Your task to perform on an android device: open app "Google Play Music" Image 0: 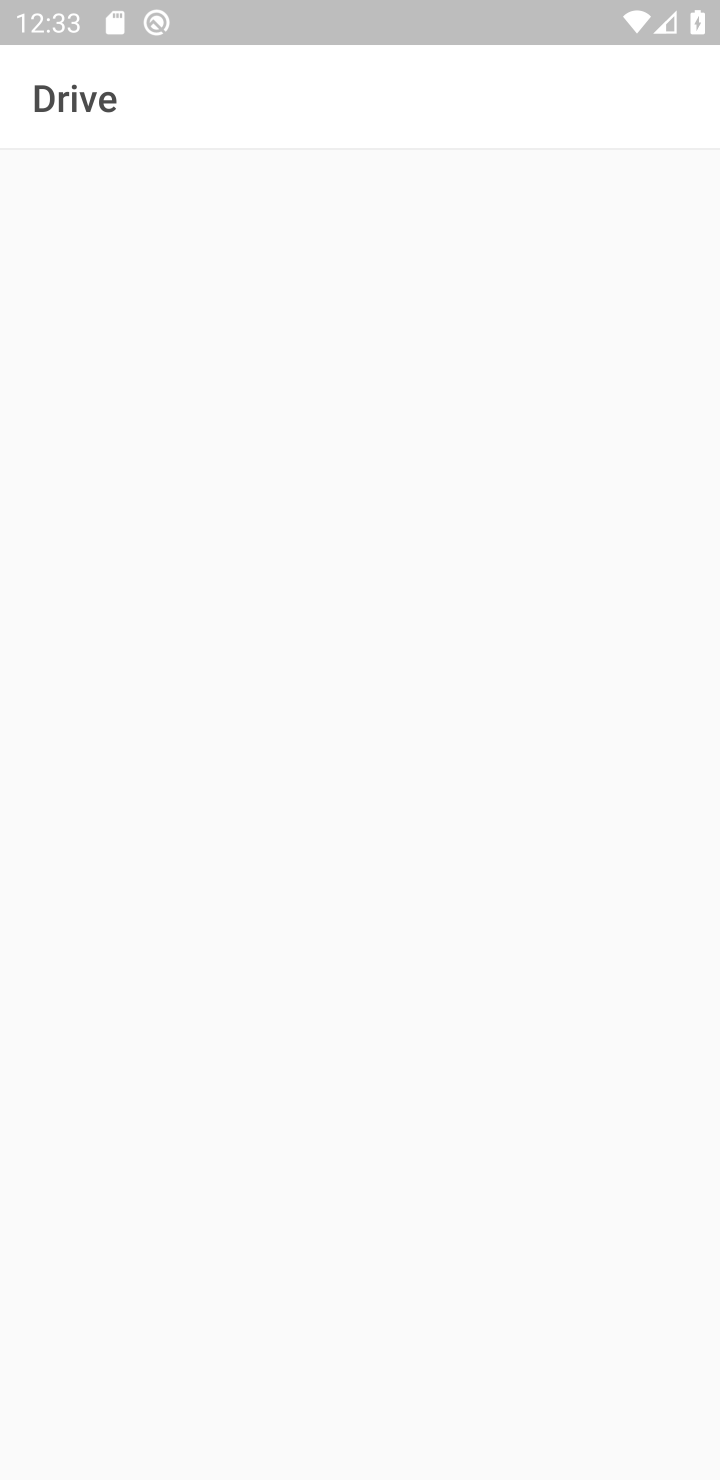
Step 0: press home button
Your task to perform on an android device: open app "Google Play Music" Image 1: 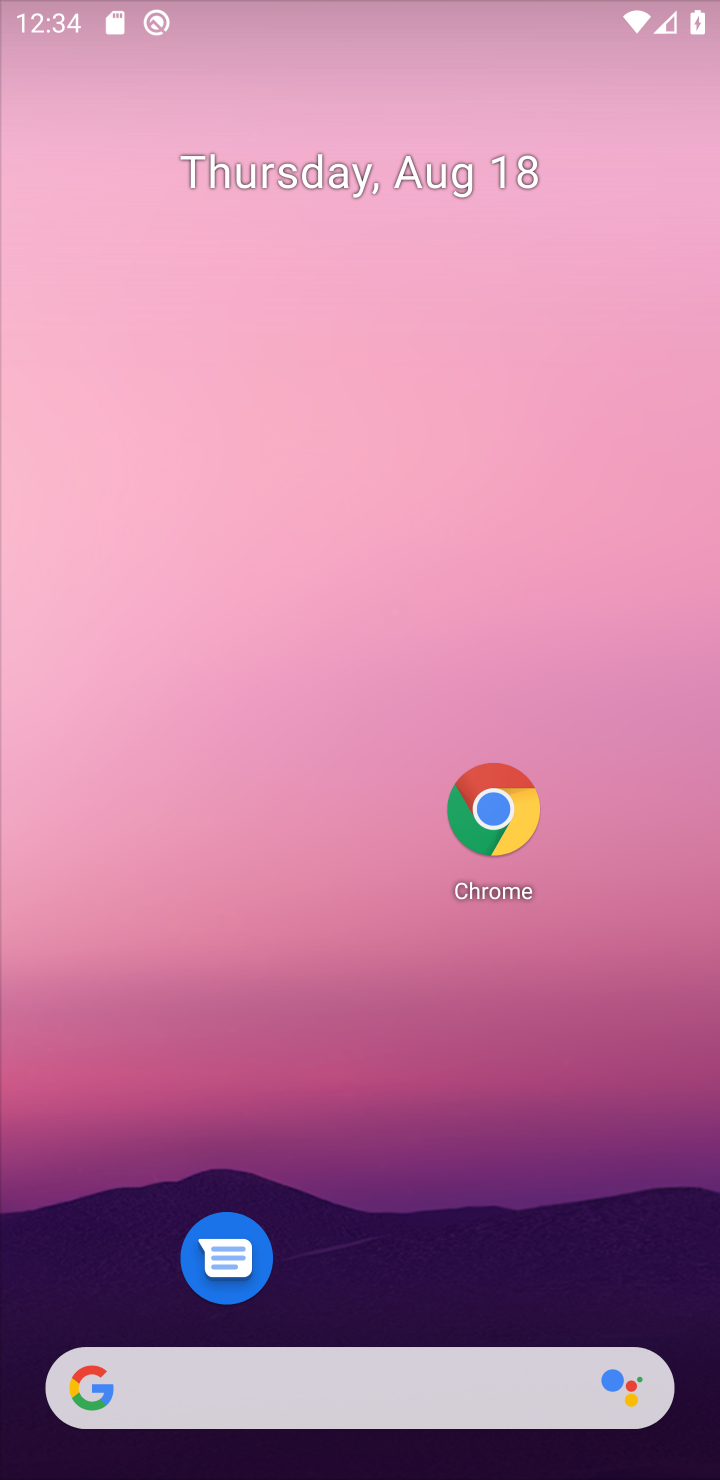
Step 1: drag from (347, 870) to (353, 527)
Your task to perform on an android device: open app "Google Play Music" Image 2: 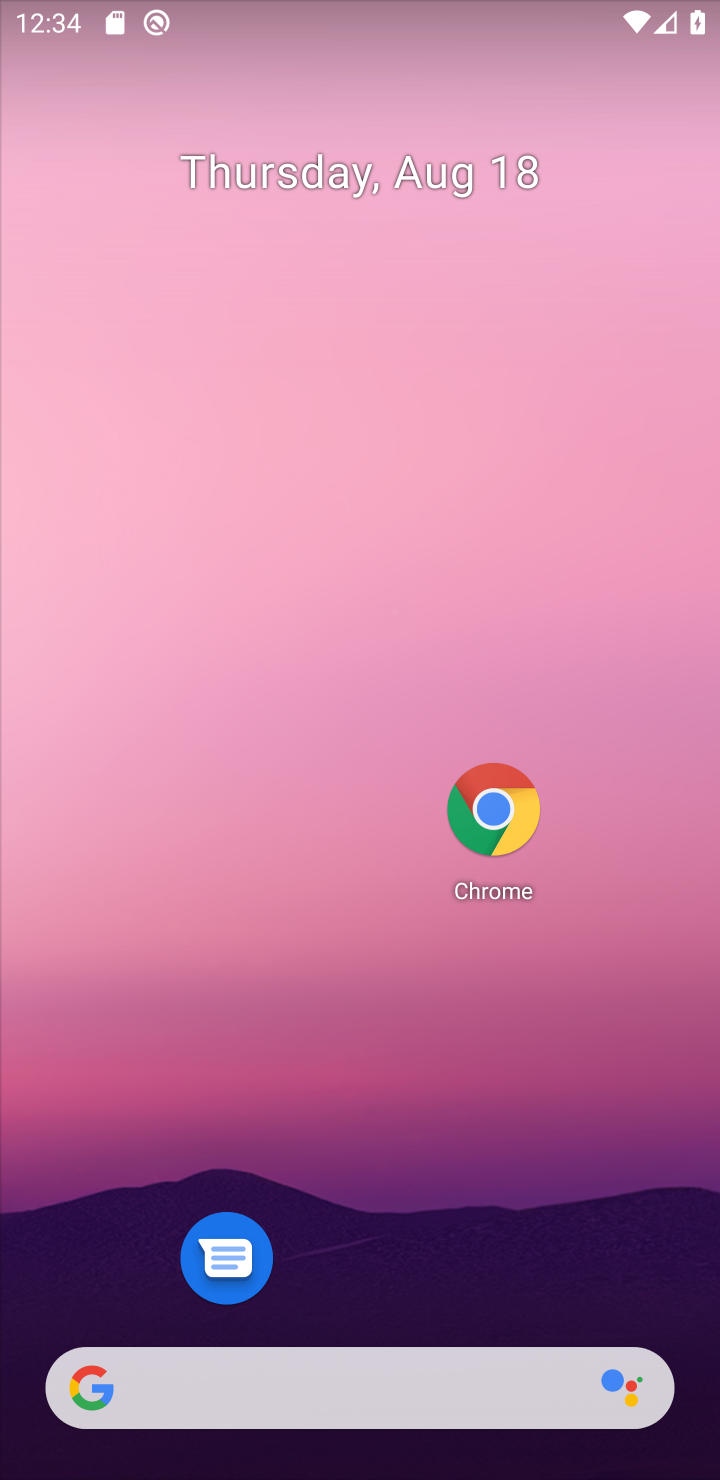
Step 2: drag from (308, 1315) to (307, 1000)
Your task to perform on an android device: open app "Google Play Music" Image 3: 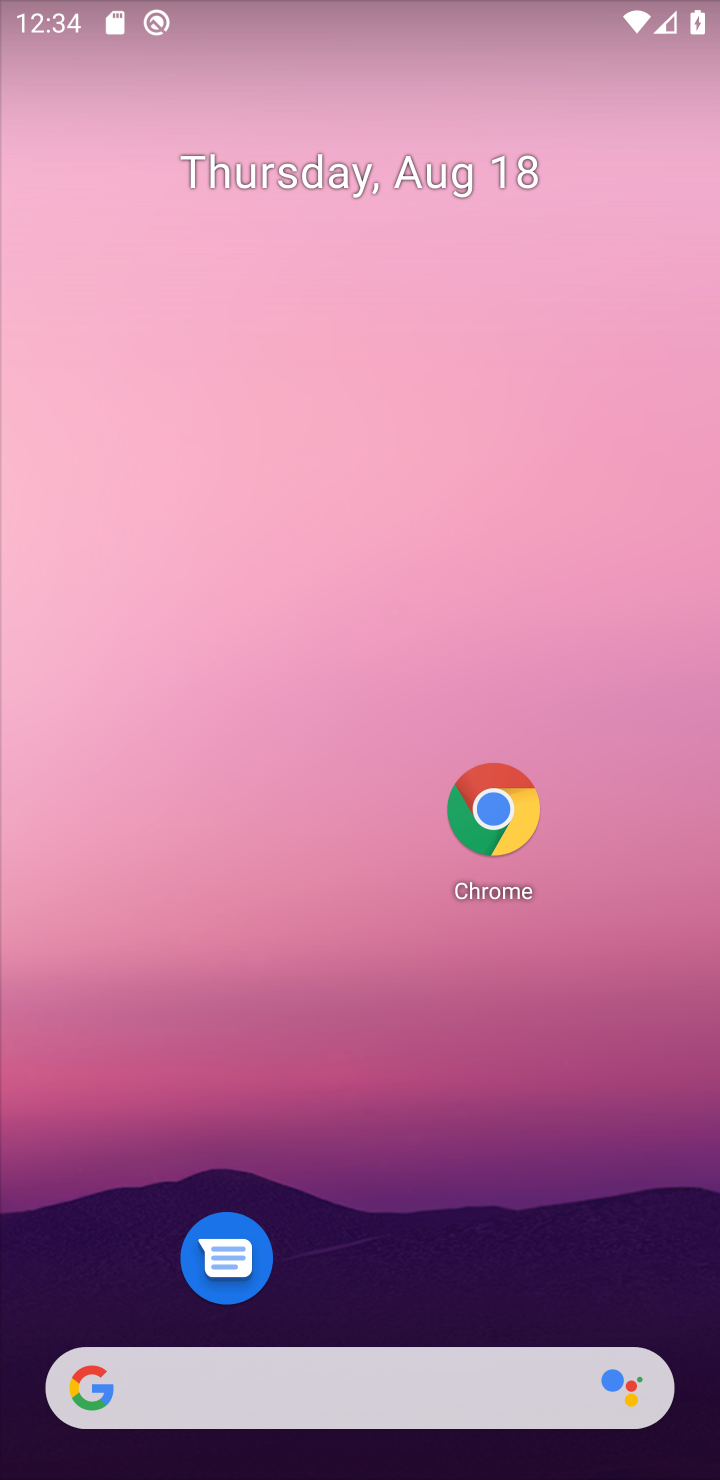
Step 3: drag from (335, 672) to (322, 323)
Your task to perform on an android device: open app "Google Play Music" Image 4: 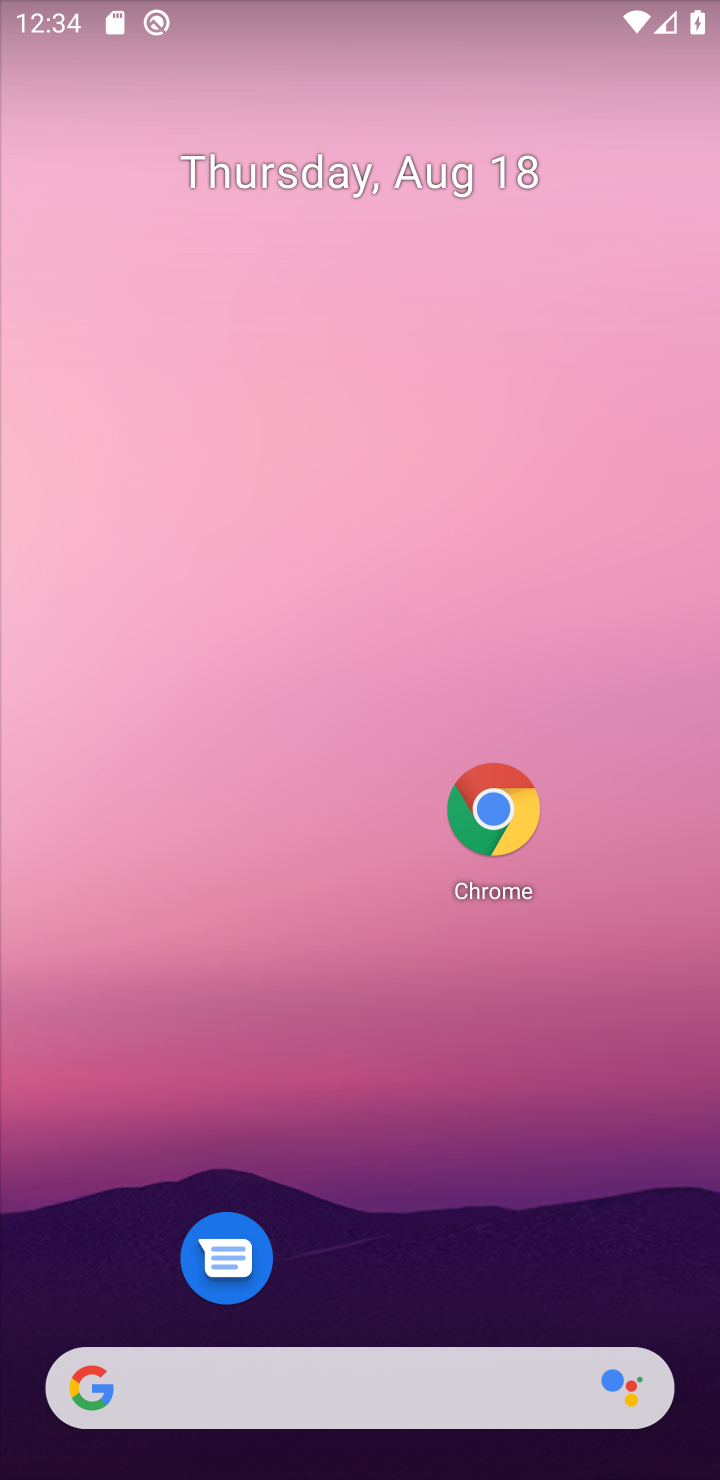
Step 4: drag from (305, 1311) to (353, 533)
Your task to perform on an android device: open app "Google Play Music" Image 5: 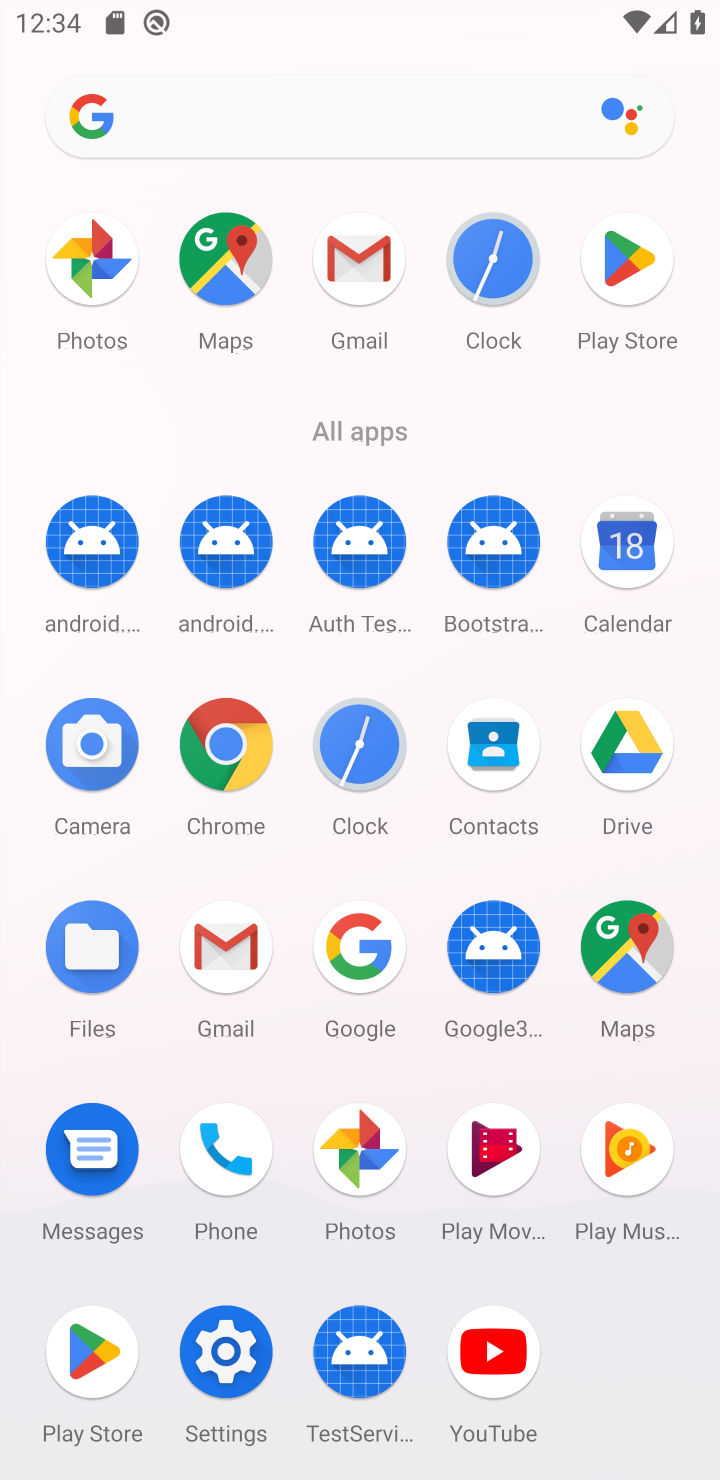
Step 5: click (653, 269)
Your task to perform on an android device: open app "Google Play Music" Image 6: 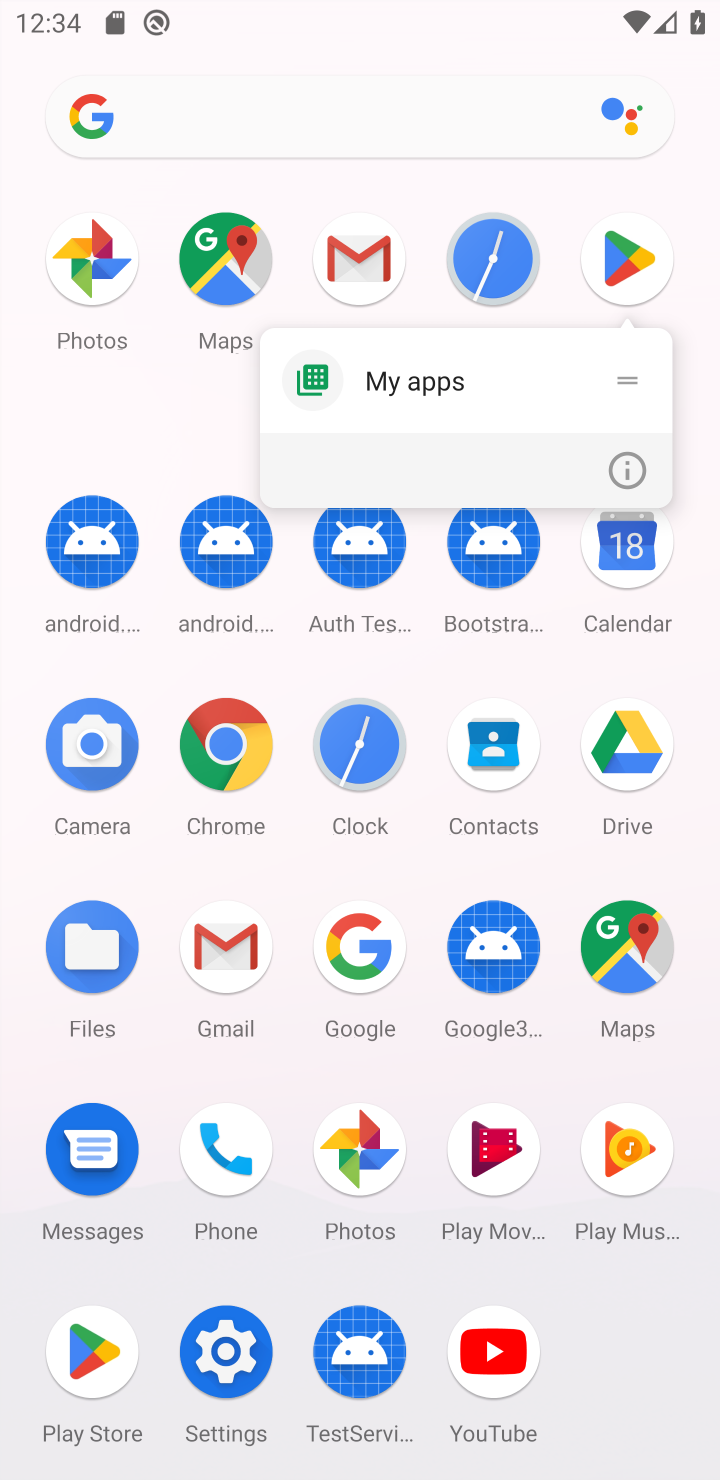
Step 6: click (594, 241)
Your task to perform on an android device: open app "Google Play Music" Image 7: 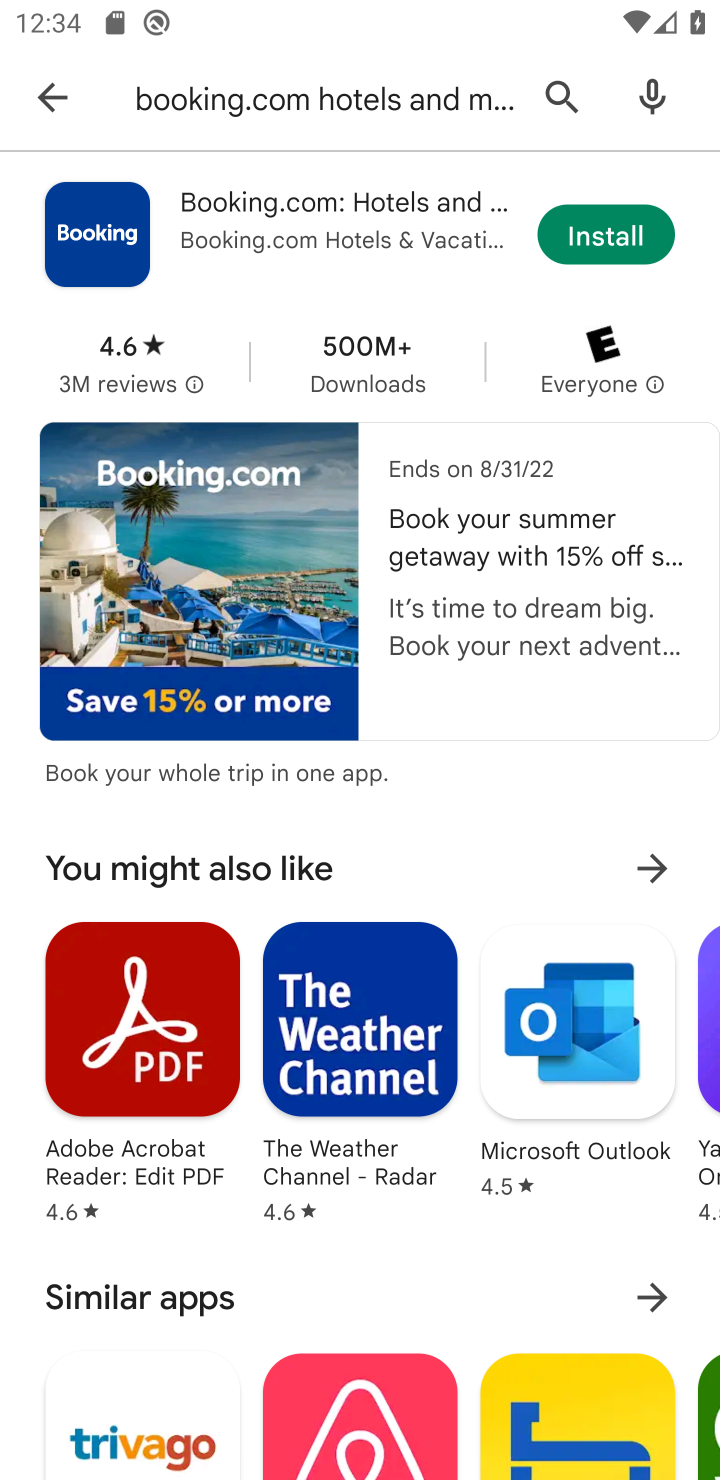
Step 7: click (36, 90)
Your task to perform on an android device: open app "Google Play Music" Image 8: 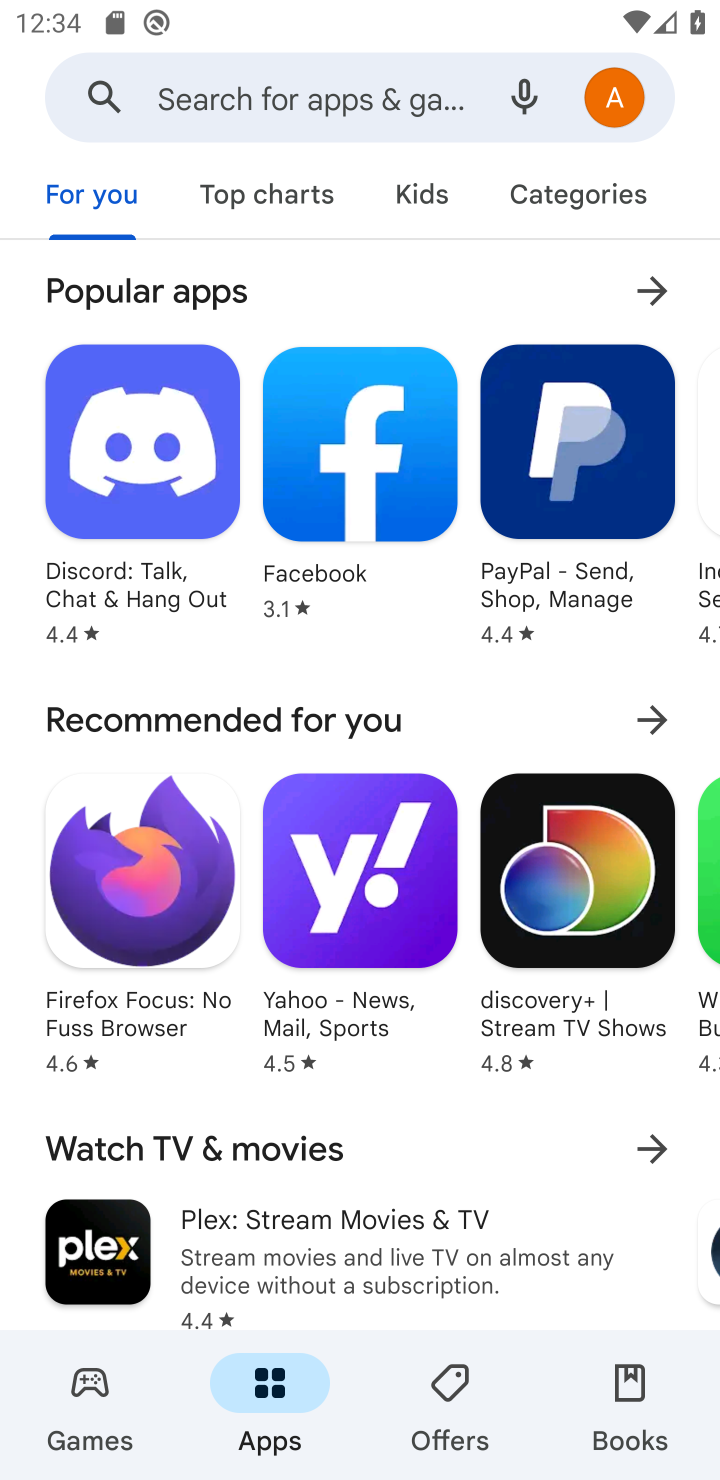
Step 8: click (250, 68)
Your task to perform on an android device: open app "Google Play Music" Image 9: 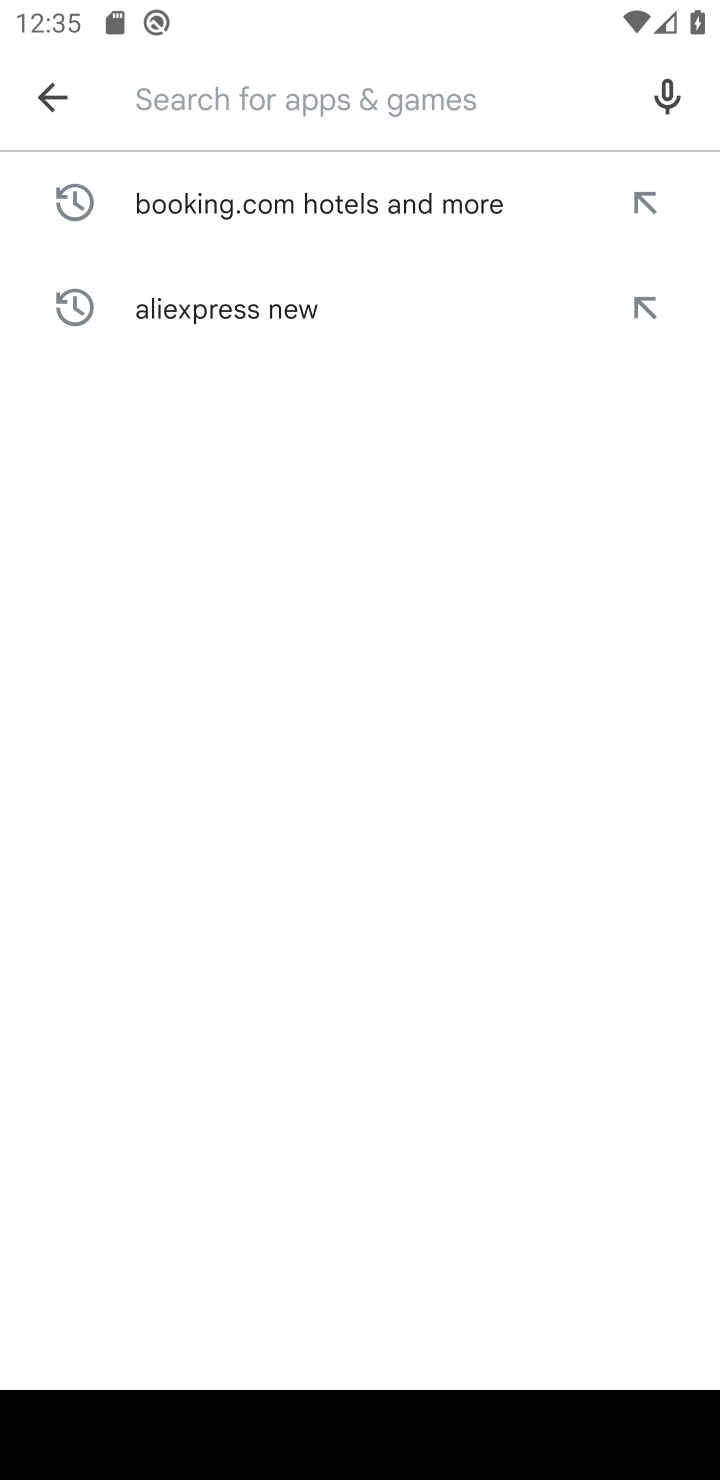
Step 9: type "Google Play Music "
Your task to perform on an android device: open app "Google Play Music" Image 10: 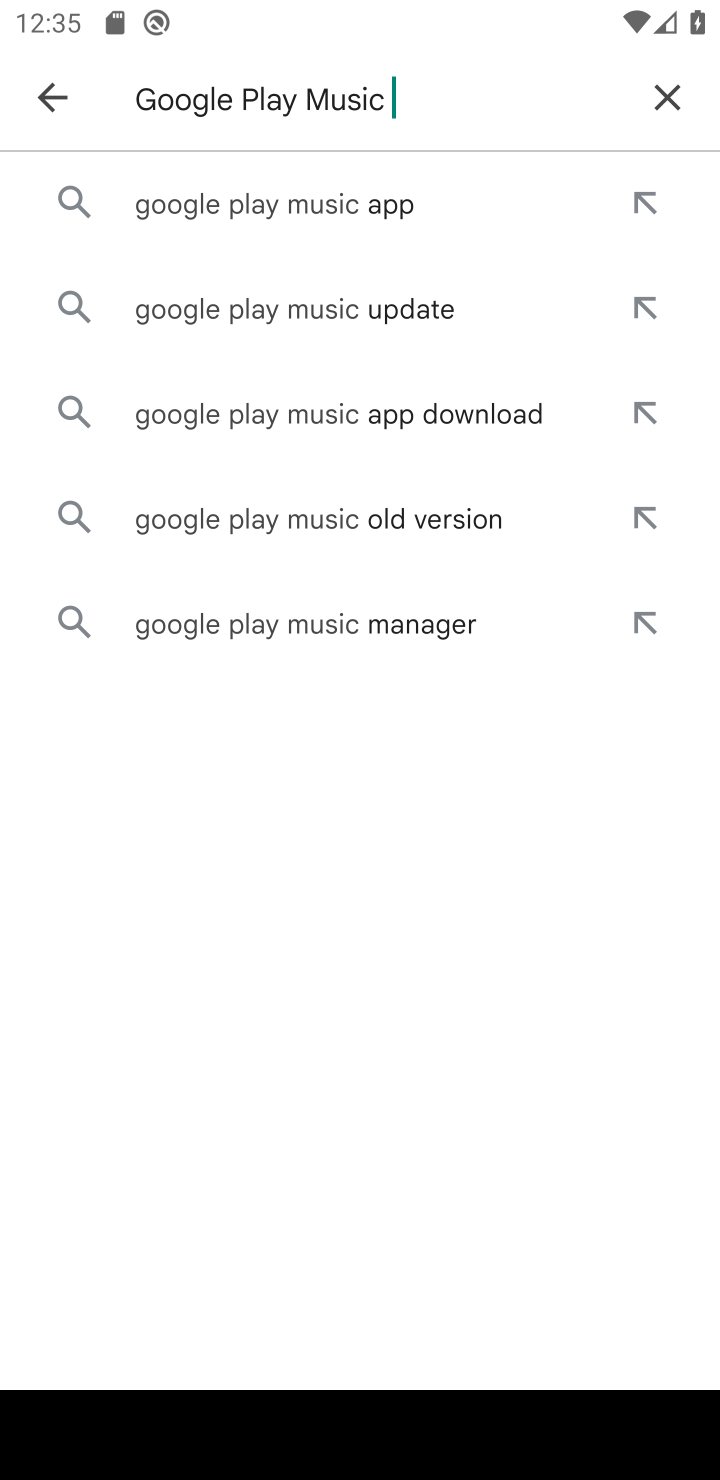
Step 10: click (266, 227)
Your task to perform on an android device: open app "Google Play Music" Image 11: 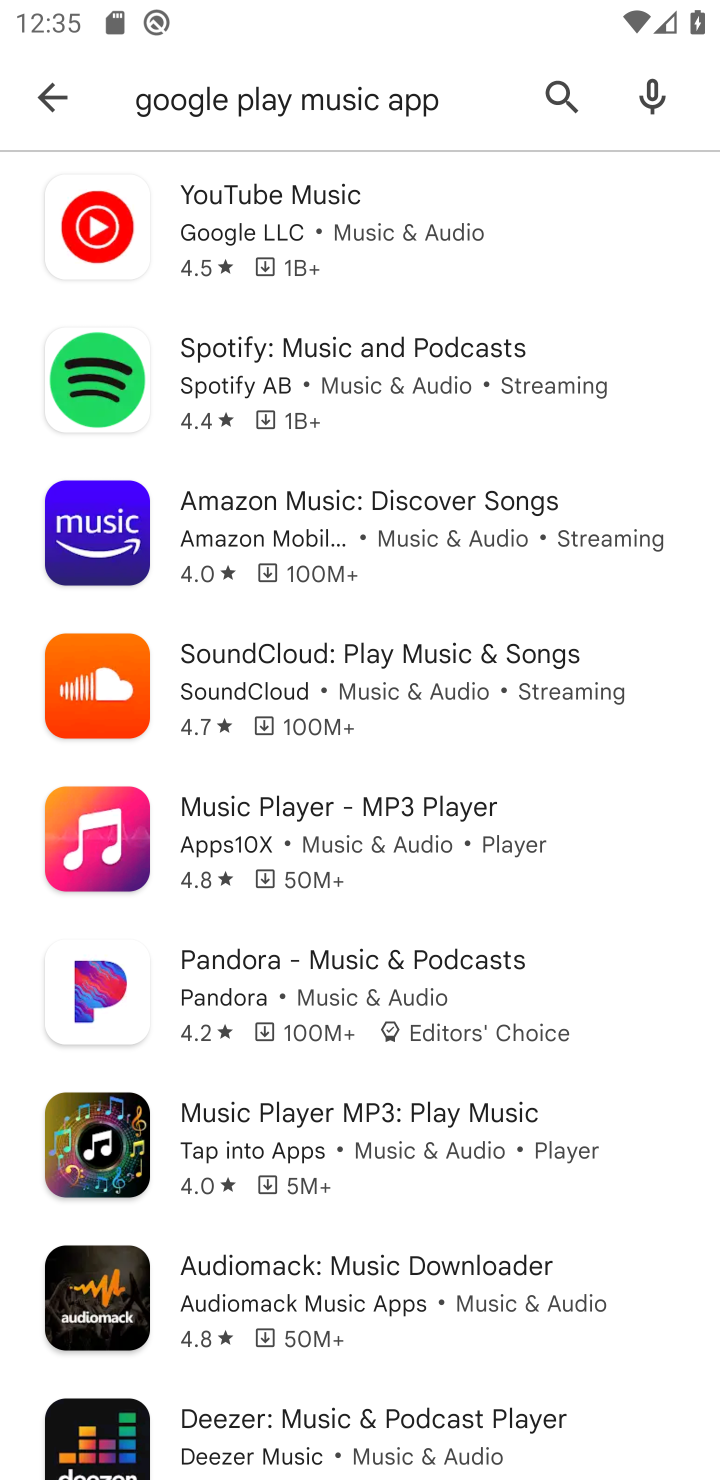
Step 11: task complete